Your task to perform on an android device: Open Yahoo.com Image 0: 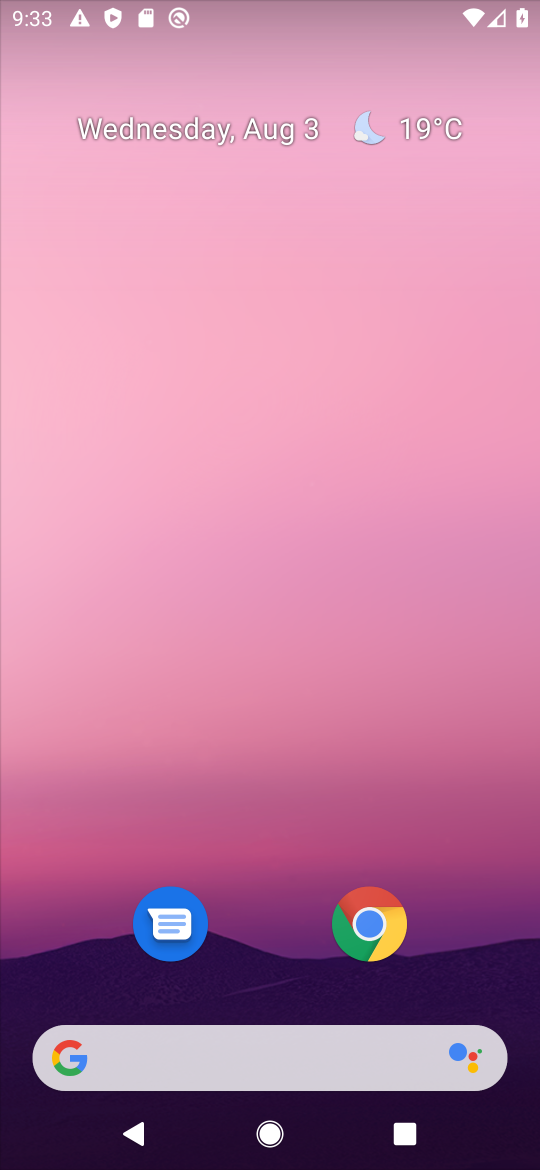
Step 0: press home button
Your task to perform on an android device: Open Yahoo.com Image 1: 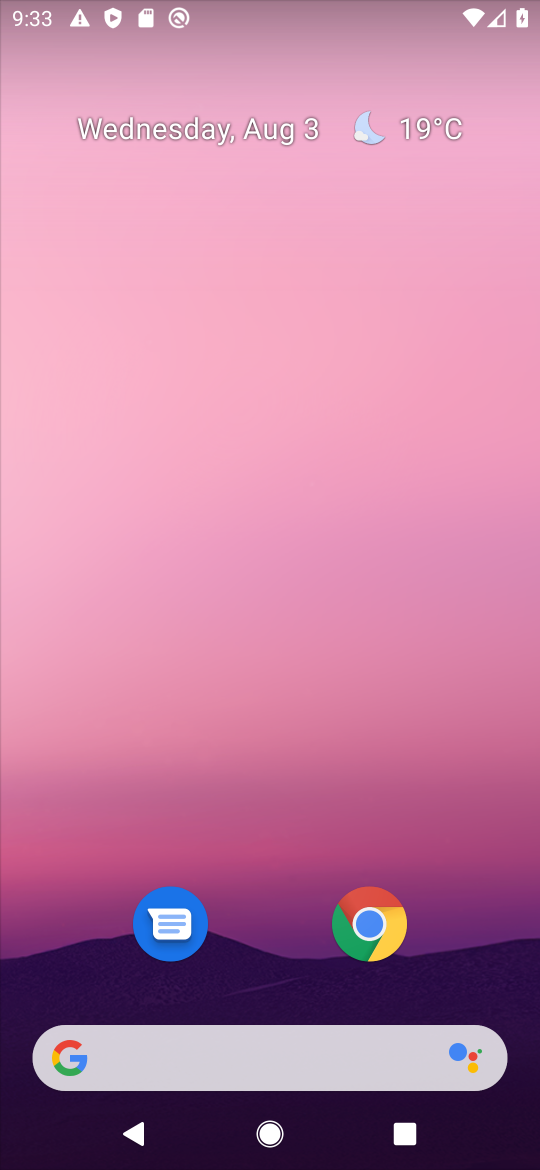
Step 1: drag from (287, 951) to (287, 200)
Your task to perform on an android device: Open Yahoo.com Image 2: 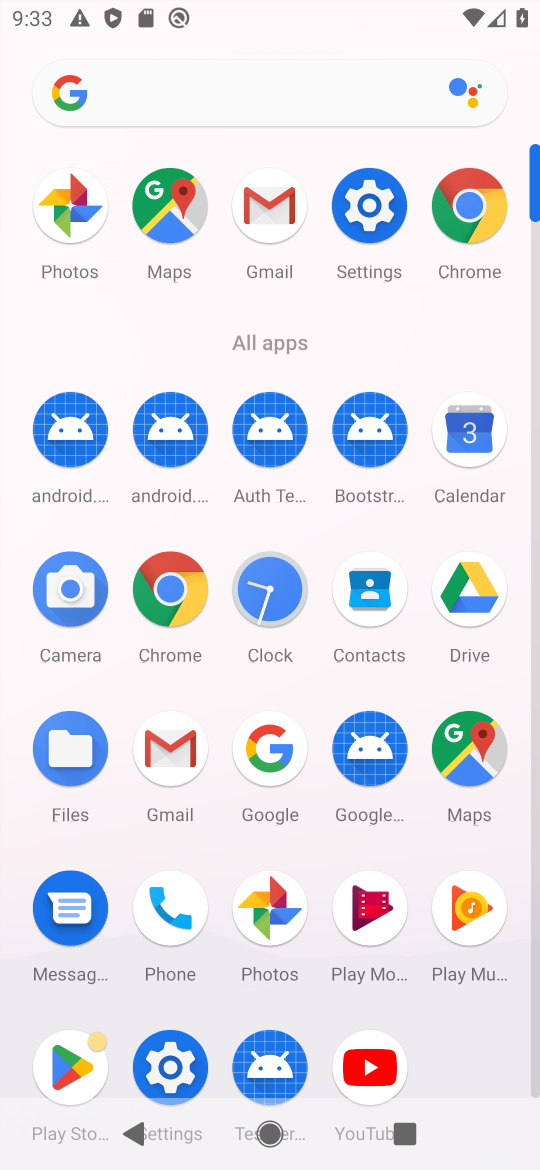
Step 2: click (478, 206)
Your task to perform on an android device: Open Yahoo.com Image 3: 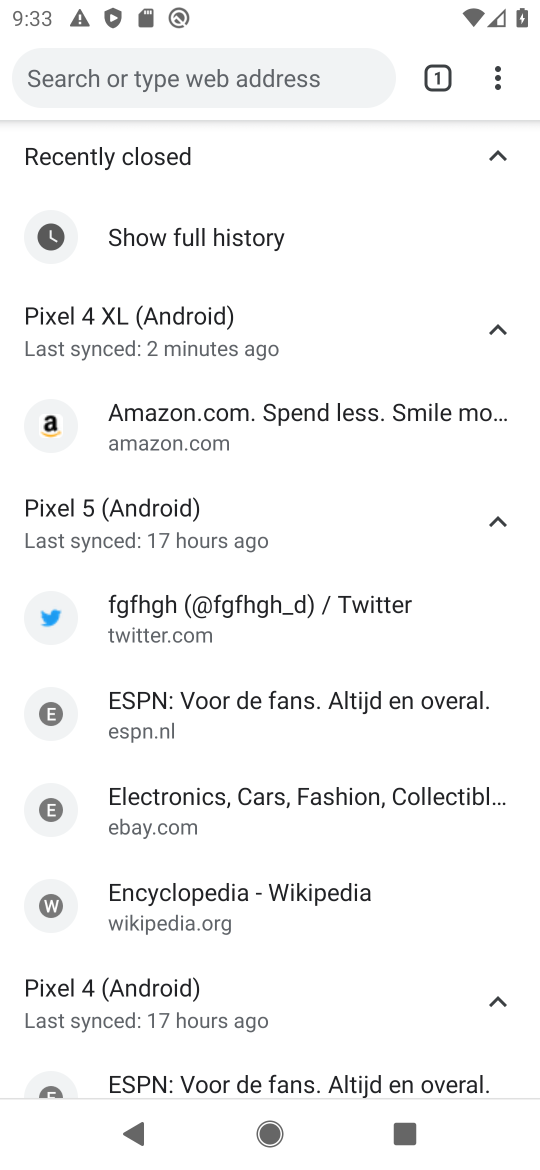
Step 3: click (440, 59)
Your task to perform on an android device: Open Yahoo.com Image 4: 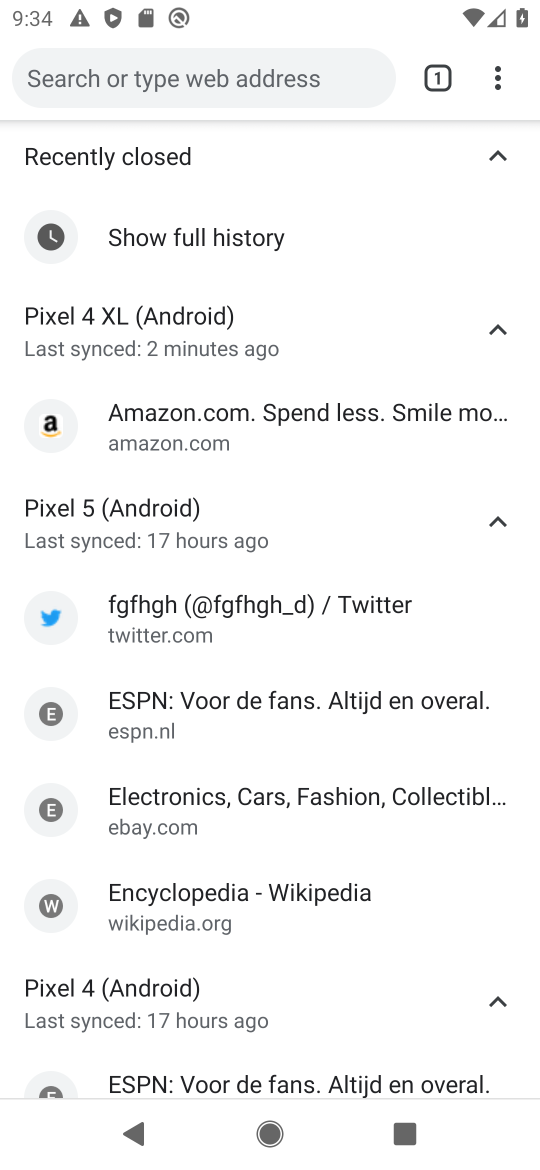
Step 4: click (430, 71)
Your task to perform on an android device: Open Yahoo.com Image 5: 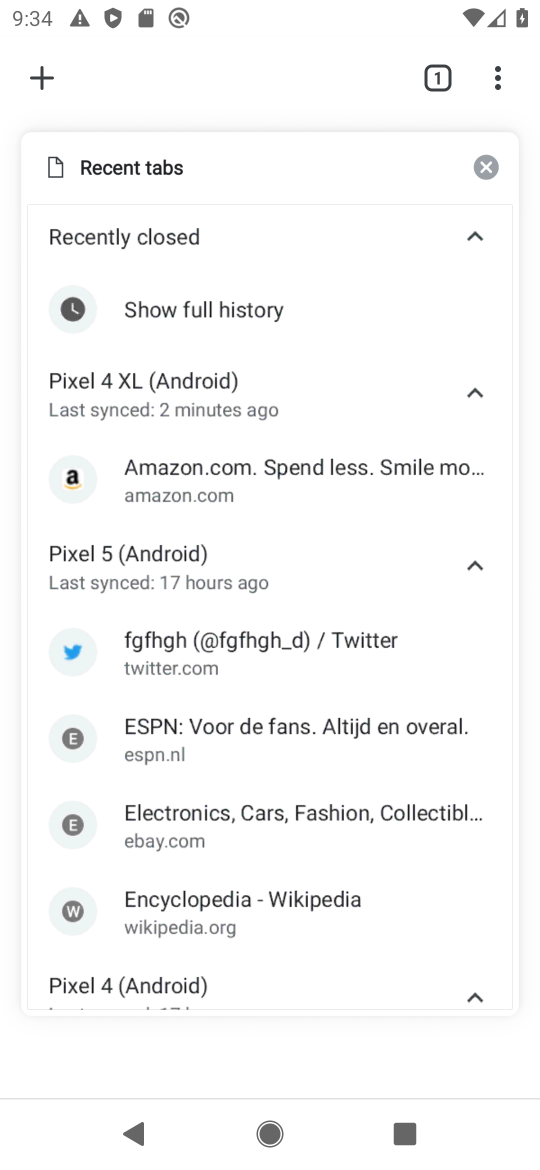
Step 5: click (35, 77)
Your task to perform on an android device: Open Yahoo.com Image 6: 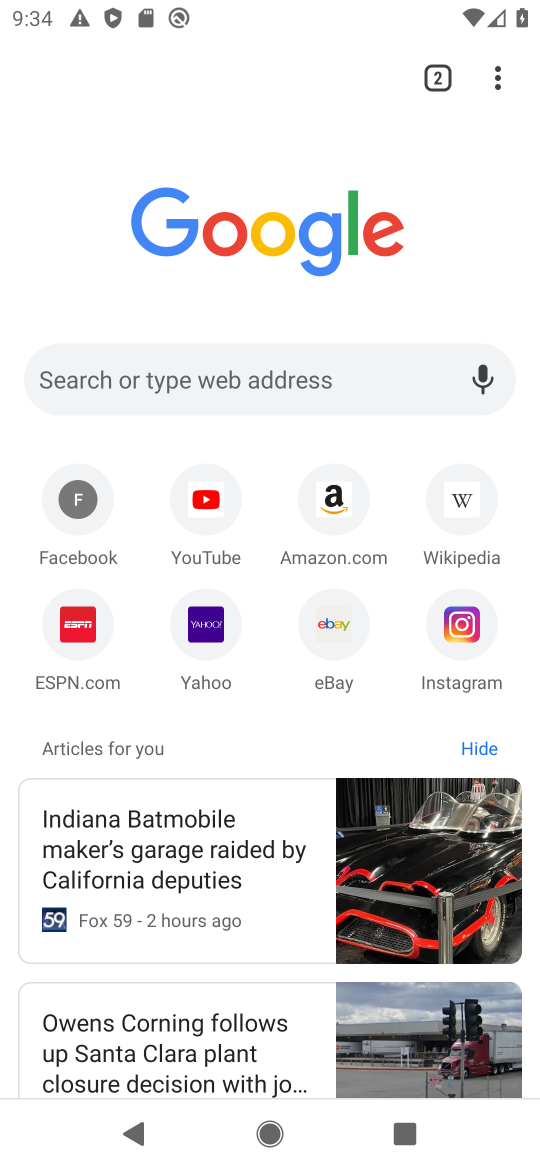
Step 6: click (210, 625)
Your task to perform on an android device: Open Yahoo.com Image 7: 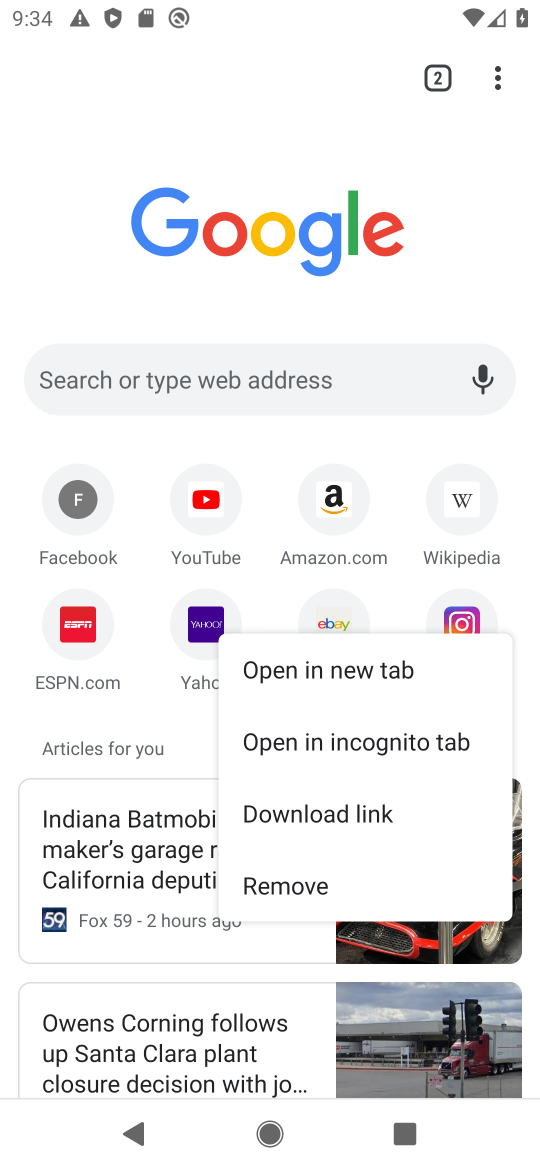
Step 7: click (191, 627)
Your task to perform on an android device: Open Yahoo.com Image 8: 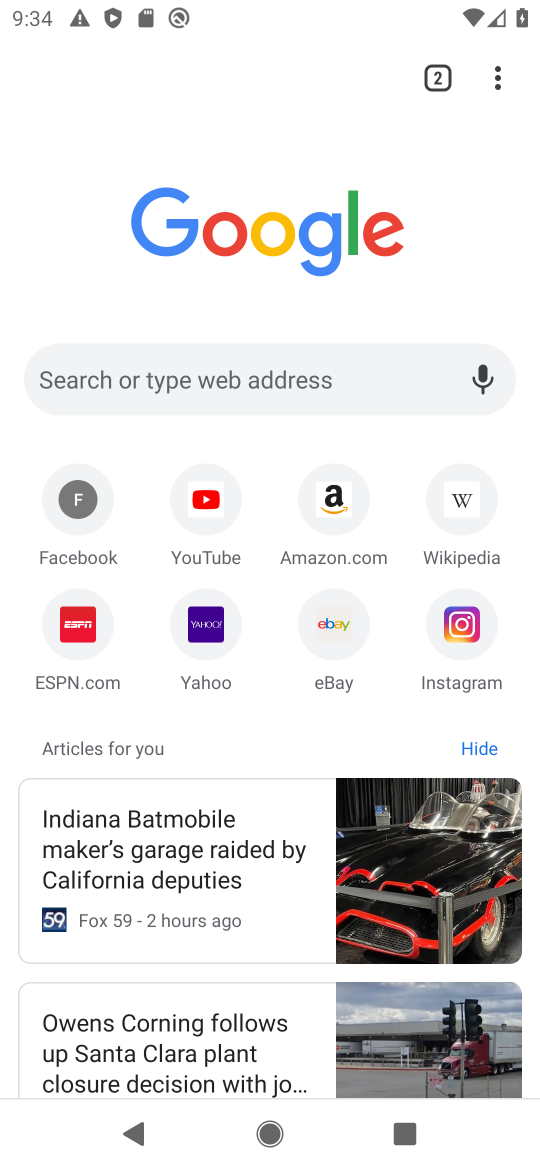
Step 8: click (191, 627)
Your task to perform on an android device: Open Yahoo.com Image 9: 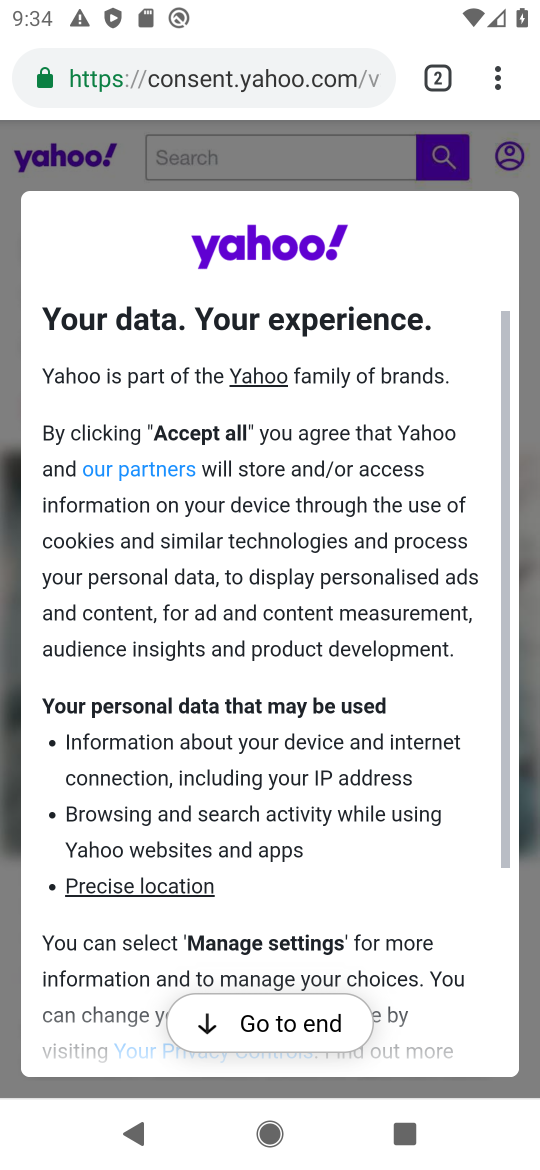
Step 9: click (267, 957)
Your task to perform on an android device: Open Yahoo.com Image 10: 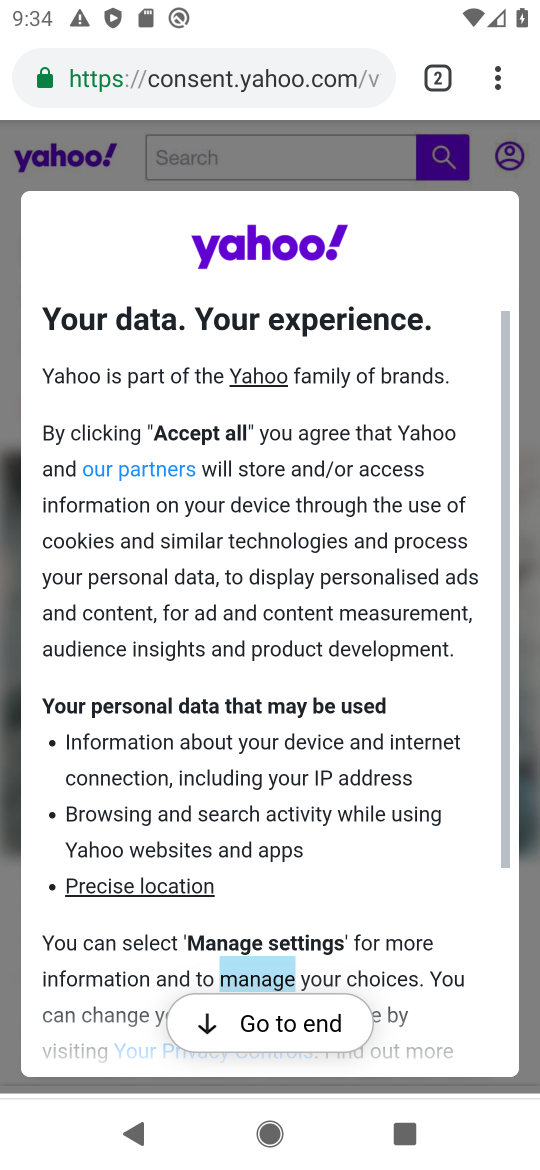
Step 10: click (250, 1010)
Your task to perform on an android device: Open Yahoo.com Image 11: 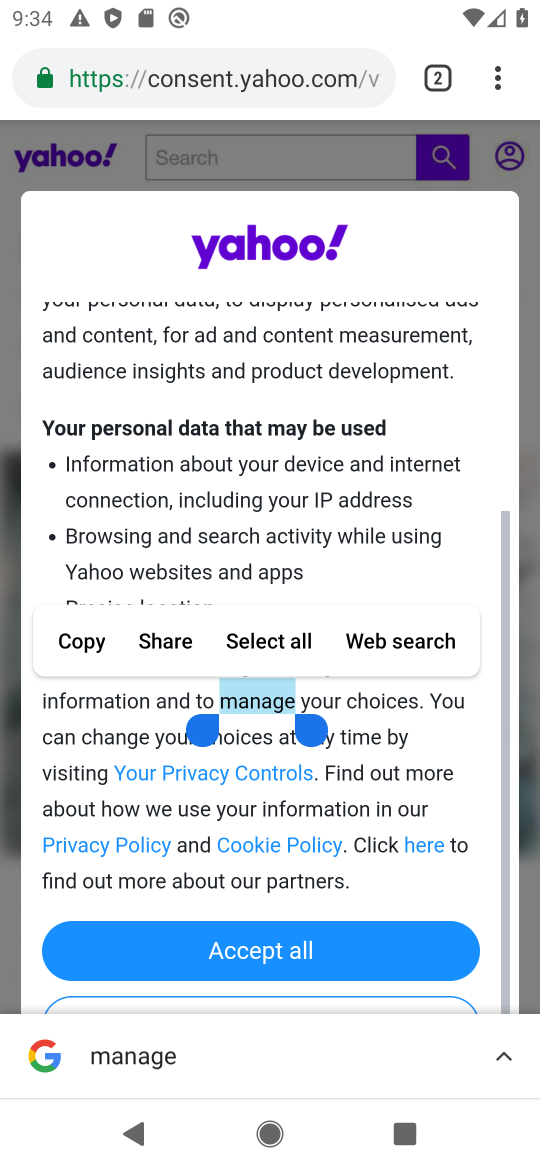
Step 11: click (257, 959)
Your task to perform on an android device: Open Yahoo.com Image 12: 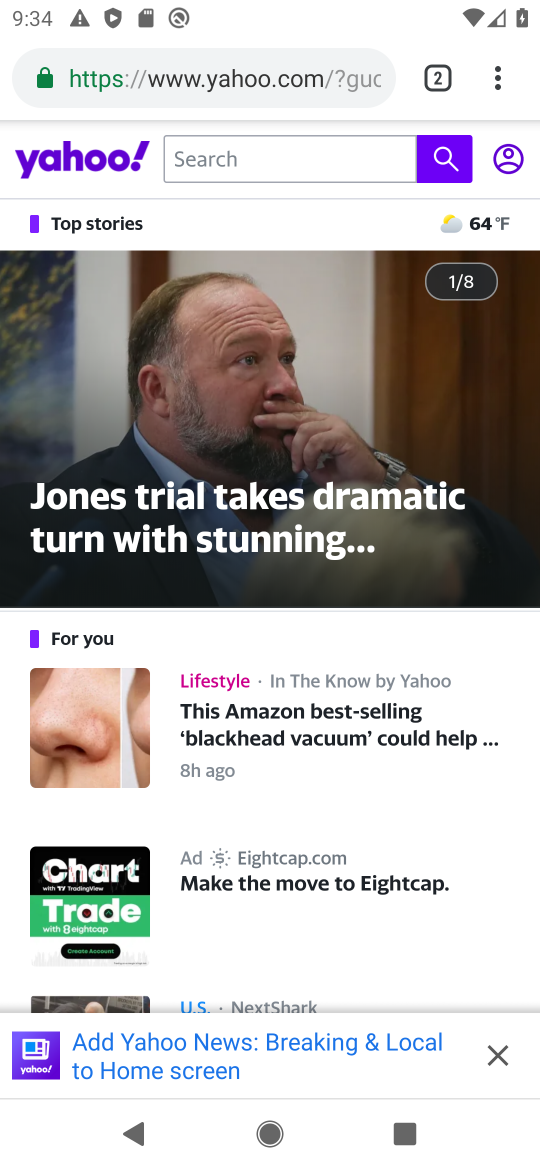
Step 12: task complete